Your task to perform on an android device: Open ESPN.com Image 0: 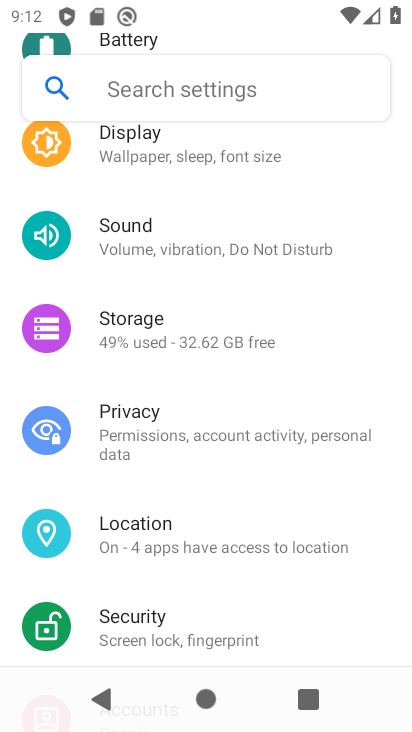
Step 0: press home button
Your task to perform on an android device: Open ESPN.com Image 1: 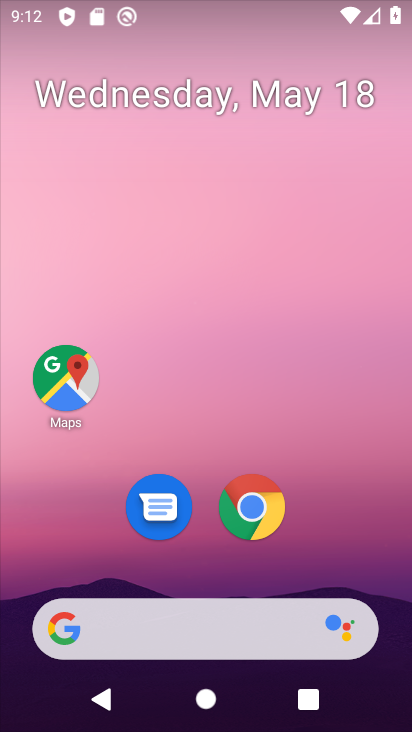
Step 1: click (255, 496)
Your task to perform on an android device: Open ESPN.com Image 2: 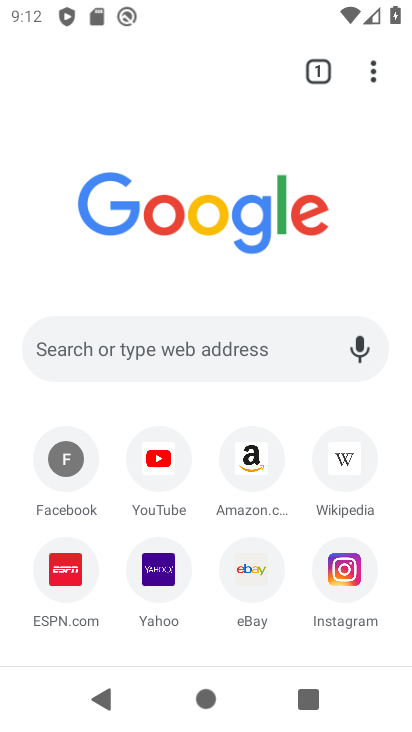
Step 2: click (96, 581)
Your task to perform on an android device: Open ESPN.com Image 3: 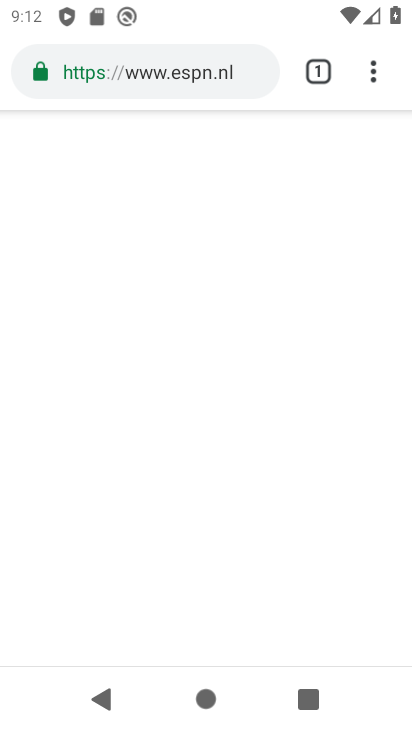
Step 3: task complete